Your task to perform on an android device: delete the emails in spam in the gmail app Image 0: 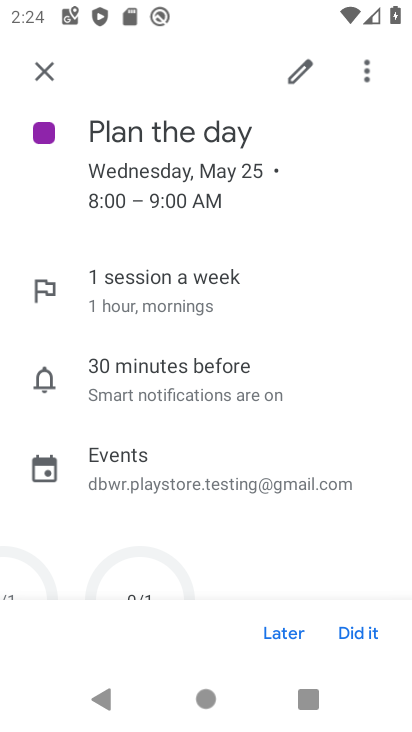
Step 0: press back button
Your task to perform on an android device: delete the emails in spam in the gmail app Image 1: 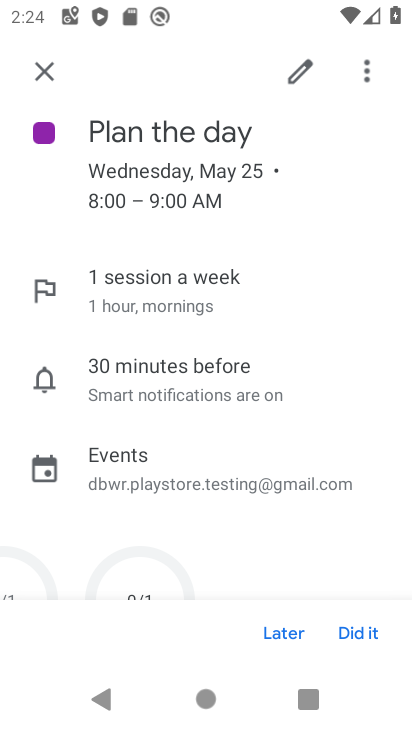
Step 1: press back button
Your task to perform on an android device: delete the emails in spam in the gmail app Image 2: 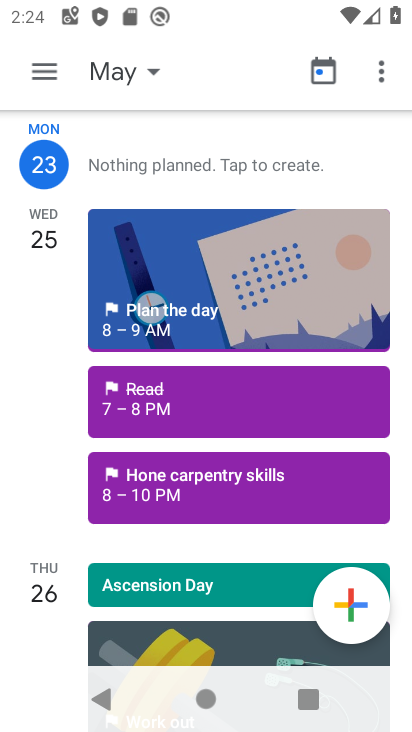
Step 2: press back button
Your task to perform on an android device: delete the emails in spam in the gmail app Image 3: 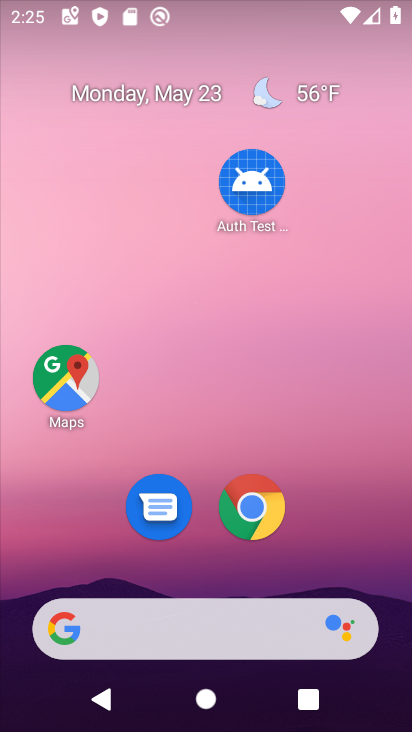
Step 3: press home button
Your task to perform on an android device: delete the emails in spam in the gmail app Image 4: 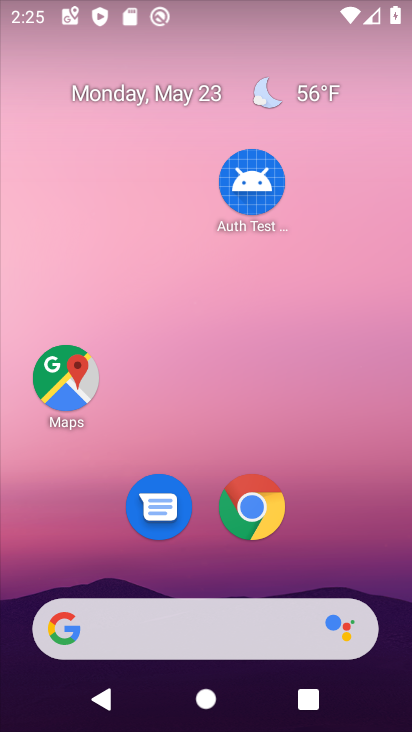
Step 4: drag from (297, 694) to (221, 55)
Your task to perform on an android device: delete the emails in spam in the gmail app Image 5: 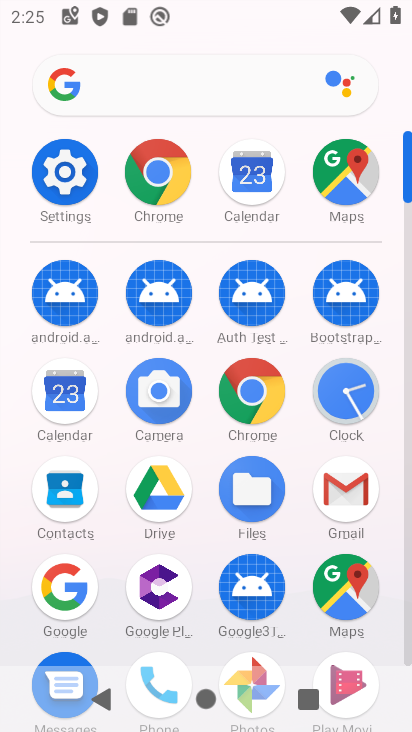
Step 5: click (358, 506)
Your task to perform on an android device: delete the emails in spam in the gmail app Image 6: 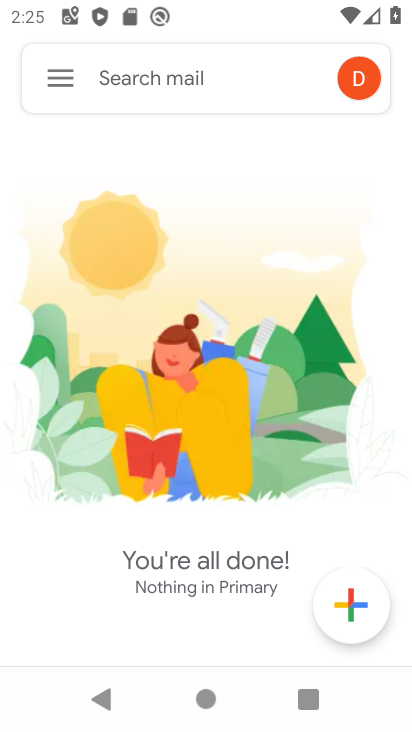
Step 6: click (58, 71)
Your task to perform on an android device: delete the emails in spam in the gmail app Image 7: 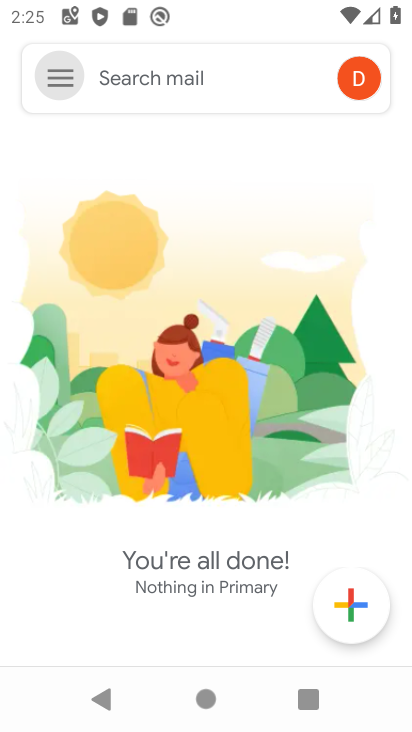
Step 7: click (58, 72)
Your task to perform on an android device: delete the emails in spam in the gmail app Image 8: 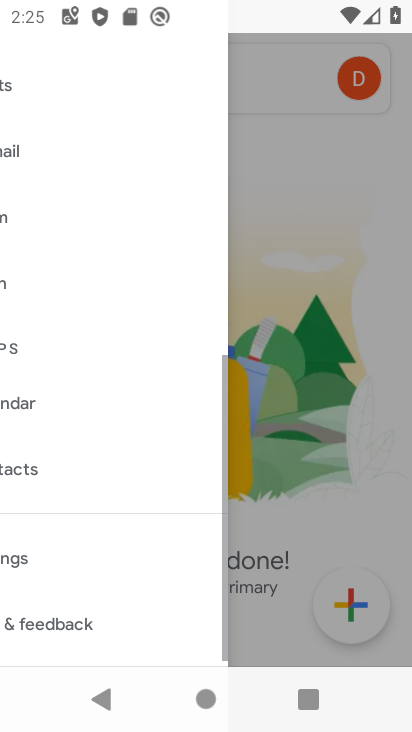
Step 8: click (58, 72)
Your task to perform on an android device: delete the emails in spam in the gmail app Image 9: 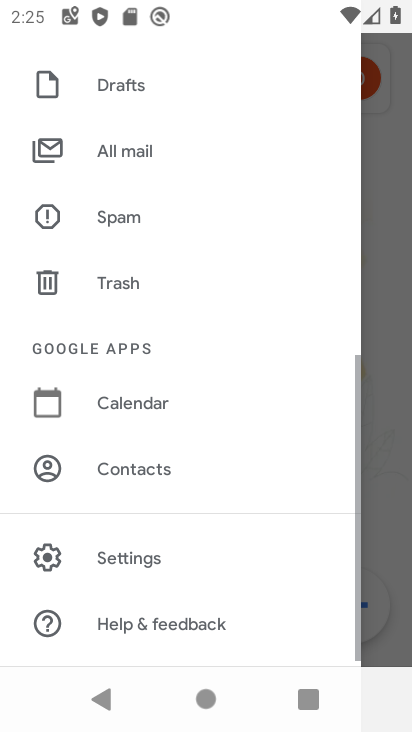
Step 9: click (58, 72)
Your task to perform on an android device: delete the emails in spam in the gmail app Image 10: 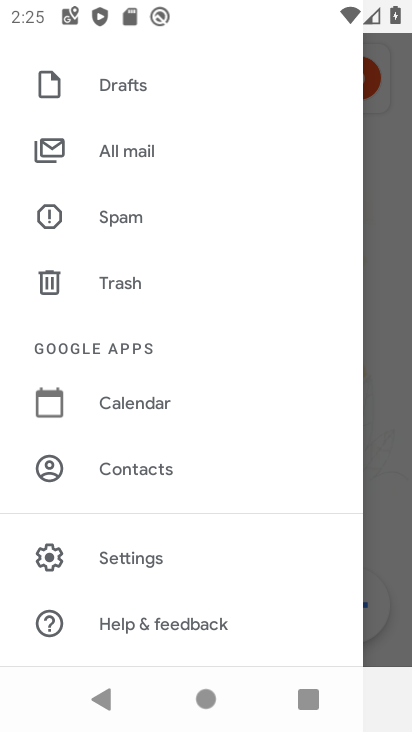
Step 10: click (117, 216)
Your task to perform on an android device: delete the emails in spam in the gmail app Image 11: 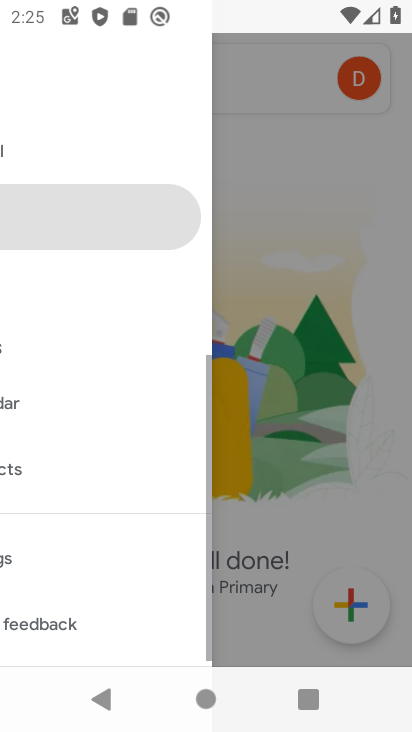
Step 11: click (117, 216)
Your task to perform on an android device: delete the emails in spam in the gmail app Image 12: 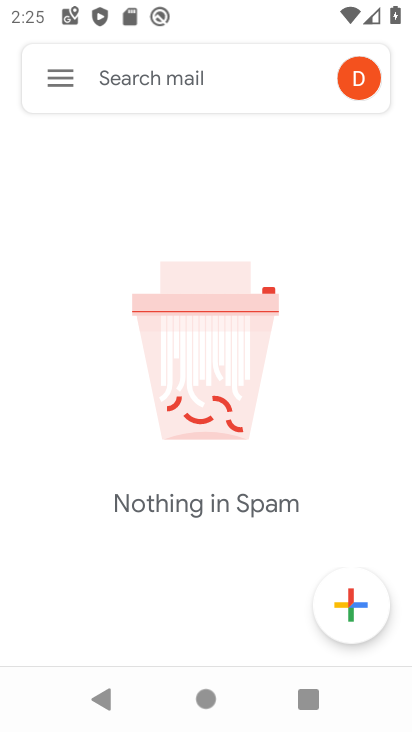
Step 12: click (116, 221)
Your task to perform on an android device: delete the emails in spam in the gmail app Image 13: 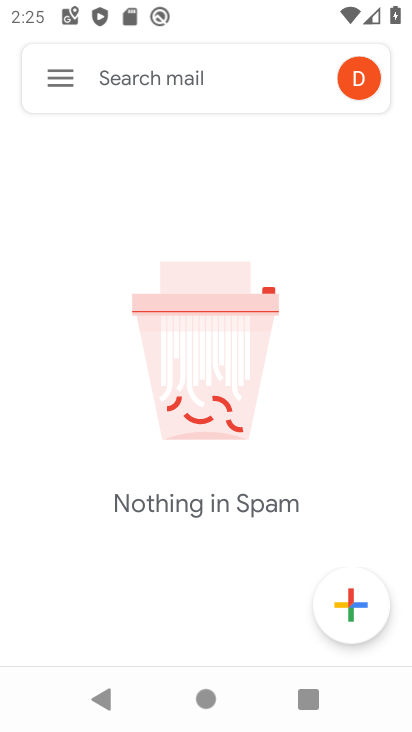
Step 13: task complete